Your task to perform on an android device: Go to CNN.com Image 0: 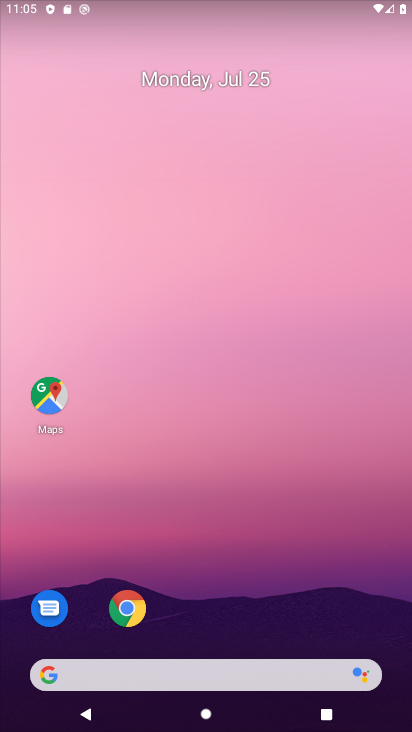
Step 0: click (121, 613)
Your task to perform on an android device: Go to CNN.com Image 1: 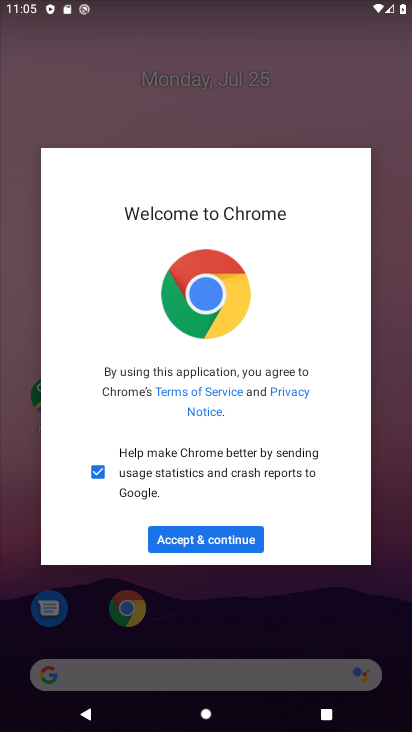
Step 1: click (176, 547)
Your task to perform on an android device: Go to CNN.com Image 2: 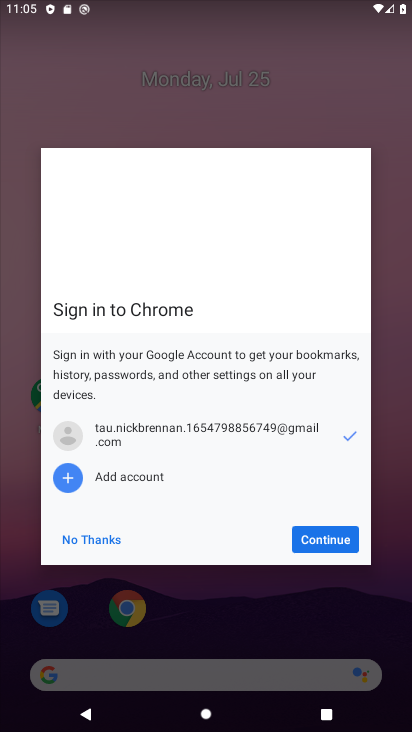
Step 2: click (325, 535)
Your task to perform on an android device: Go to CNN.com Image 3: 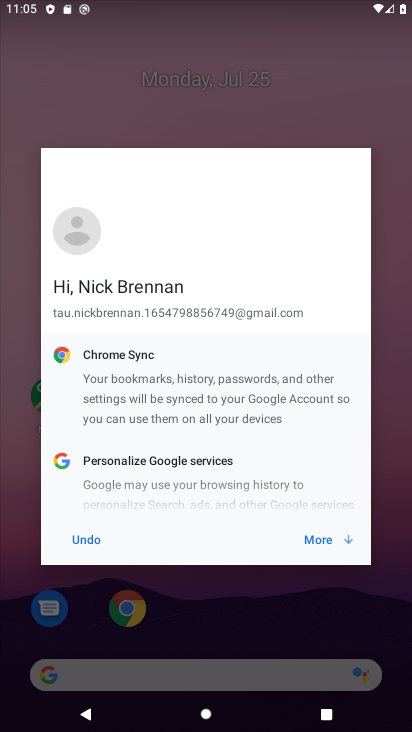
Step 3: click (309, 542)
Your task to perform on an android device: Go to CNN.com Image 4: 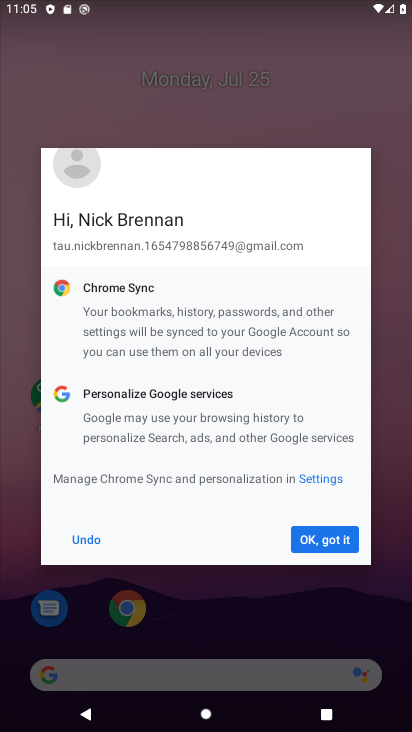
Step 4: click (324, 540)
Your task to perform on an android device: Go to CNN.com Image 5: 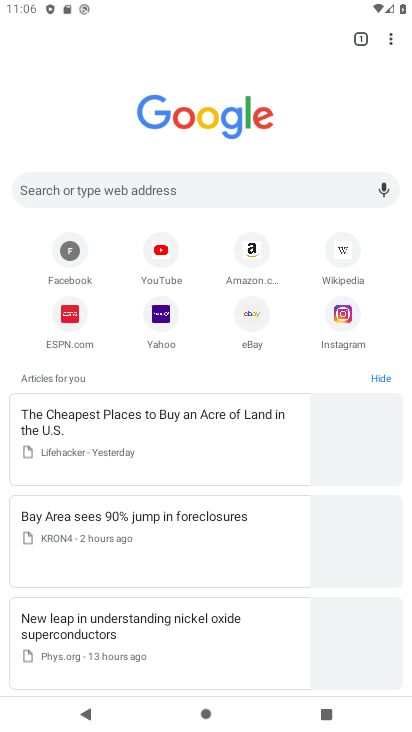
Step 5: click (167, 190)
Your task to perform on an android device: Go to CNN.com Image 6: 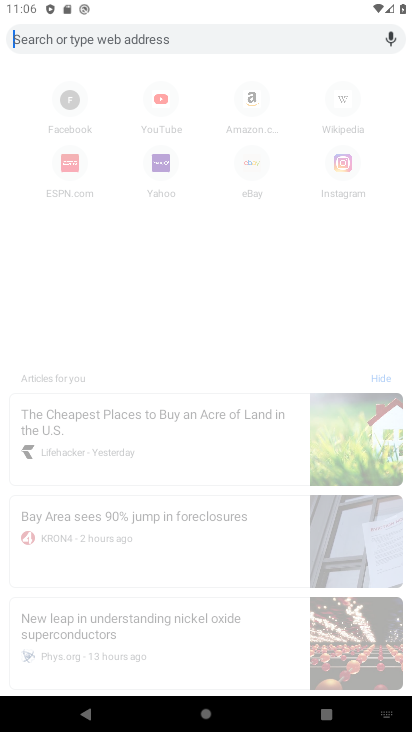
Step 6: type "cnn.com"
Your task to perform on an android device: Go to CNN.com Image 7: 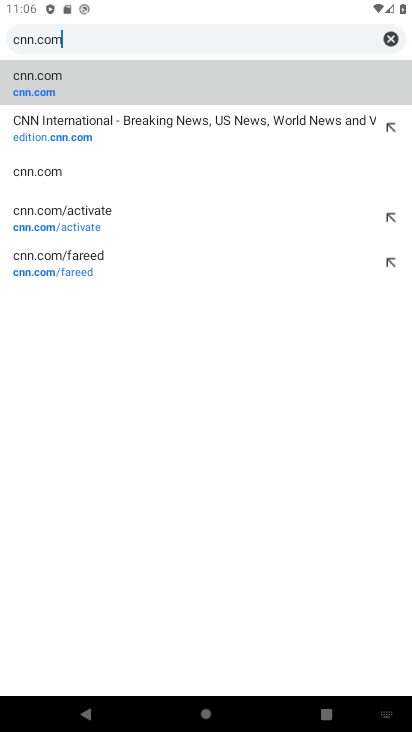
Step 7: click (69, 73)
Your task to perform on an android device: Go to CNN.com Image 8: 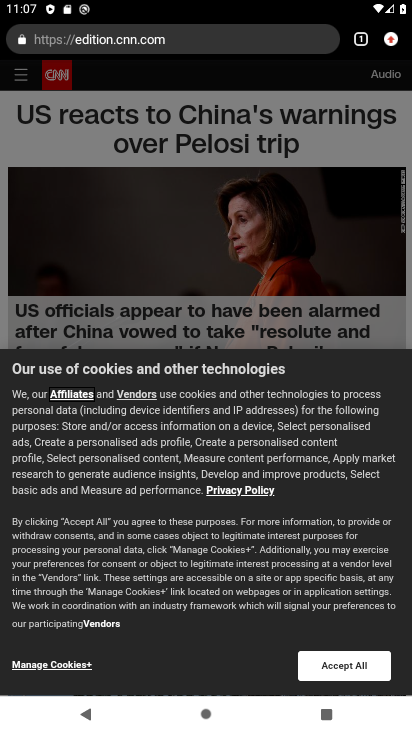
Step 8: task complete